Your task to perform on an android device: Open Google Maps and go to "Timeline" Image 0: 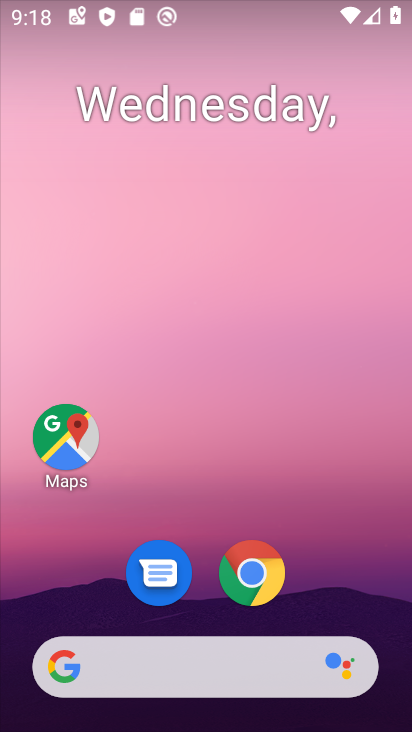
Step 0: click (65, 428)
Your task to perform on an android device: Open Google Maps and go to "Timeline" Image 1: 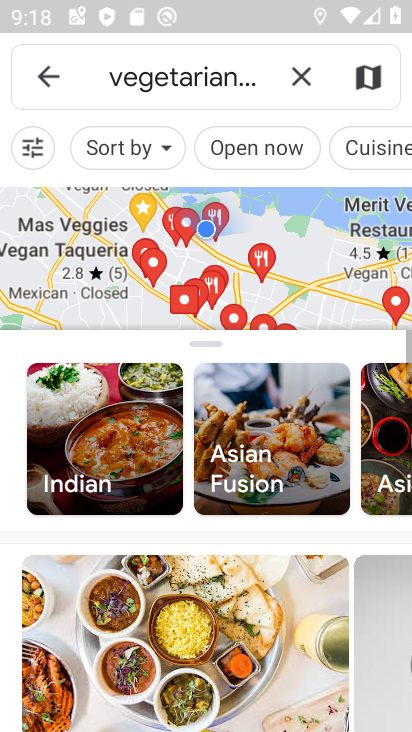
Step 1: click (51, 75)
Your task to perform on an android device: Open Google Maps and go to "Timeline" Image 2: 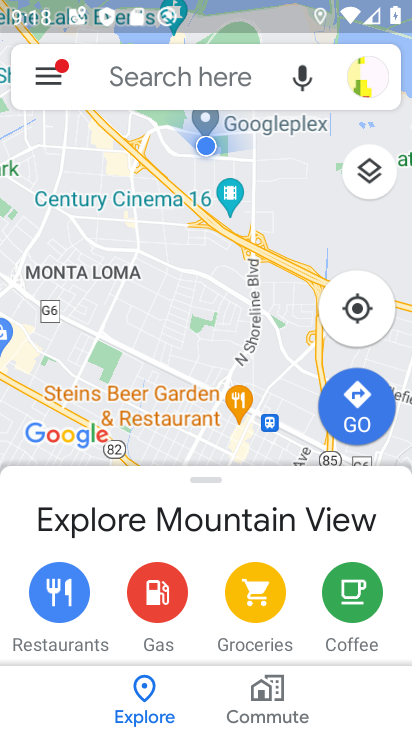
Step 2: click (46, 73)
Your task to perform on an android device: Open Google Maps and go to "Timeline" Image 3: 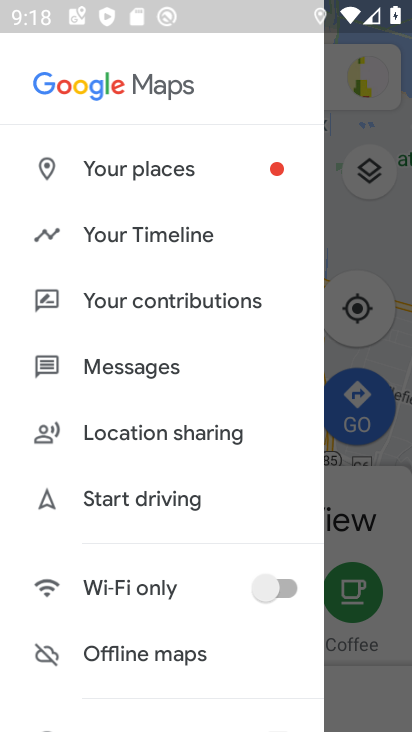
Step 3: click (173, 231)
Your task to perform on an android device: Open Google Maps and go to "Timeline" Image 4: 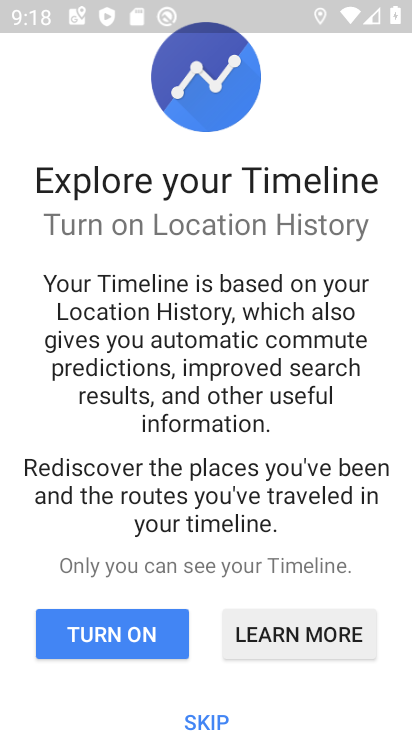
Step 4: task complete